Your task to perform on an android device: open device folders in google photos Image 0: 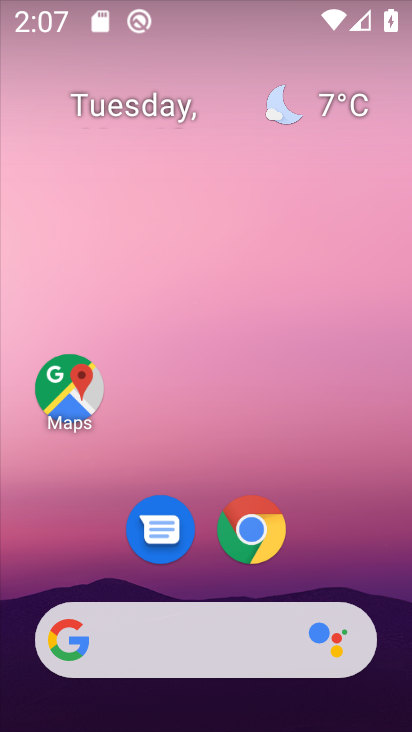
Step 0: drag from (330, 568) to (246, 58)
Your task to perform on an android device: open device folders in google photos Image 1: 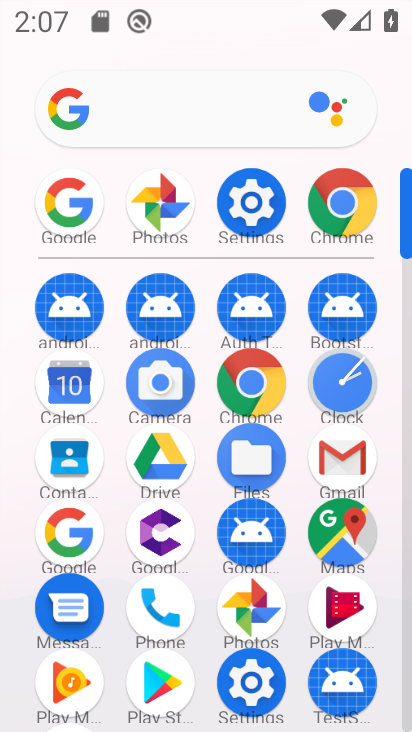
Step 1: click (159, 203)
Your task to perform on an android device: open device folders in google photos Image 2: 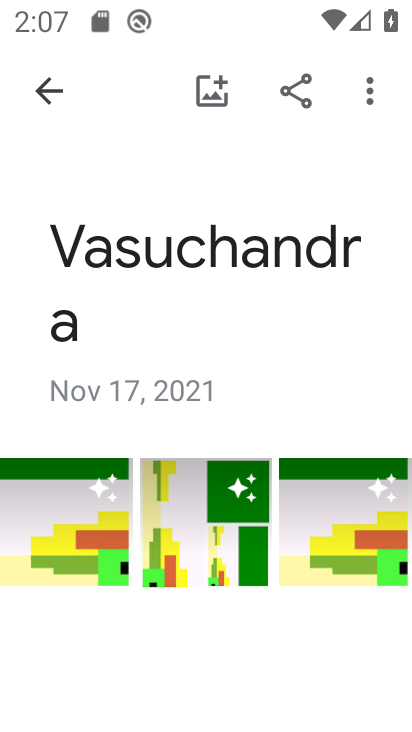
Step 2: press back button
Your task to perform on an android device: open device folders in google photos Image 3: 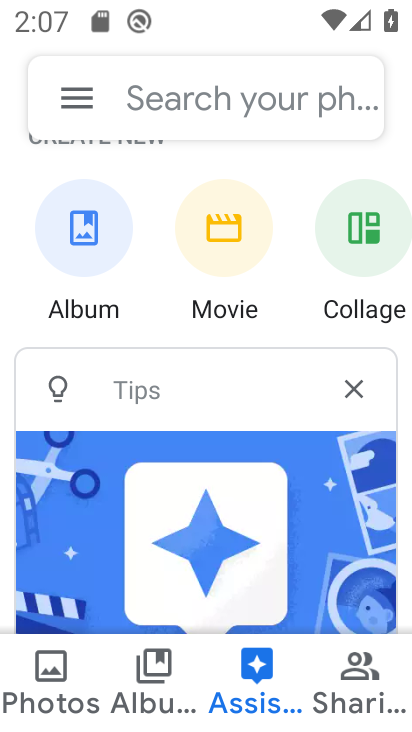
Step 3: click (70, 103)
Your task to perform on an android device: open device folders in google photos Image 4: 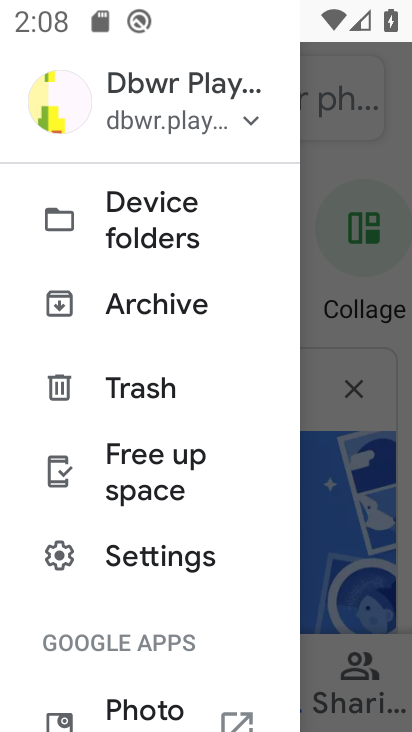
Step 4: click (144, 216)
Your task to perform on an android device: open device folders in google photos Image 5: 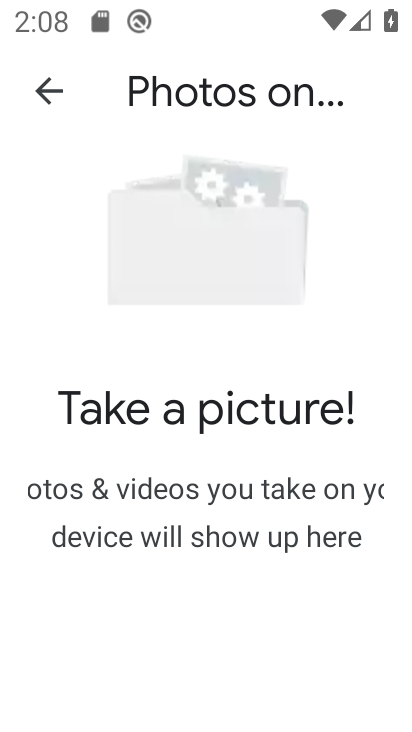
Step 5: task complete